Your task to perform on an android device: check out phone information Image 0: 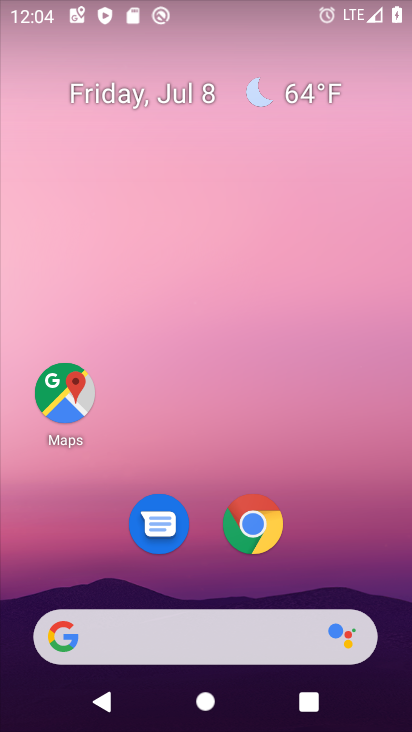
Step 0: drag from (243, 409) to (256, 9)
Your task to perform on an android device: check out phone information Image 1: 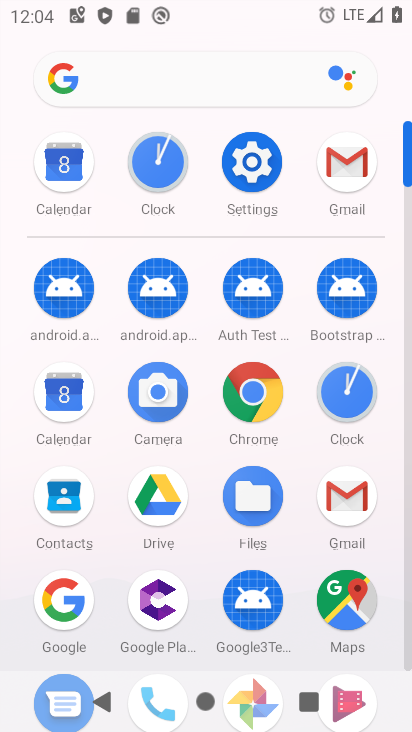
Step 1: drag from (195, 439) to (219, 153)
Your task to perform on an android device: check out phone information Image 2: 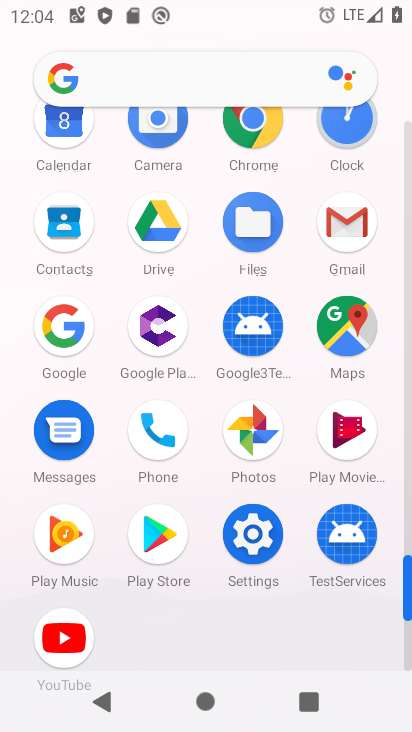
Step 2: click (168, 419)
Your task to perform on an android device: check out phone information Image 3: 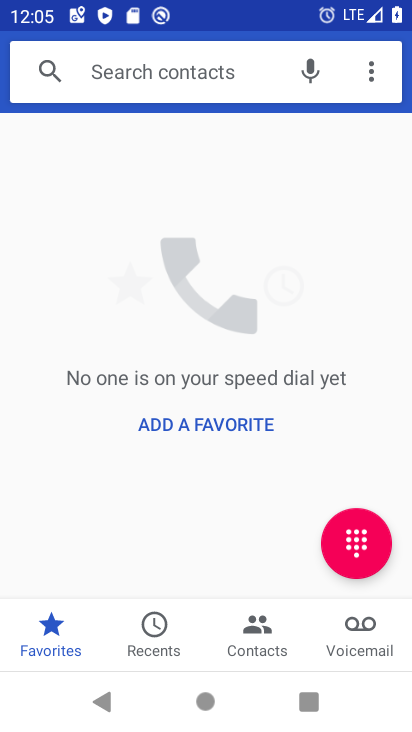
Step 3: click (371, 77)
Your task to perform on an android device: check out phone information Image 4: 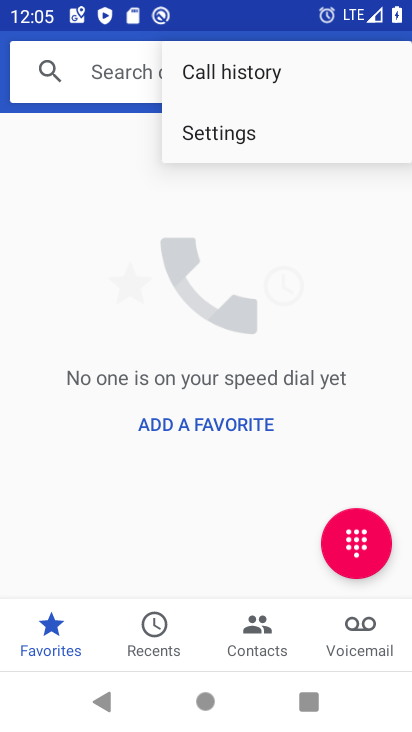
Step 4: click (286, 123)
Your task to perform on an android device: check out phone information Image 5: 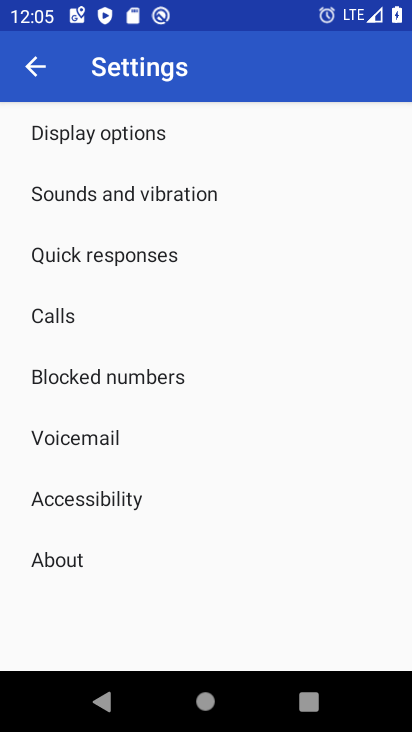
Step 5: click (63, 554)
Your task to perform on an android device: check out phone information Image 6: 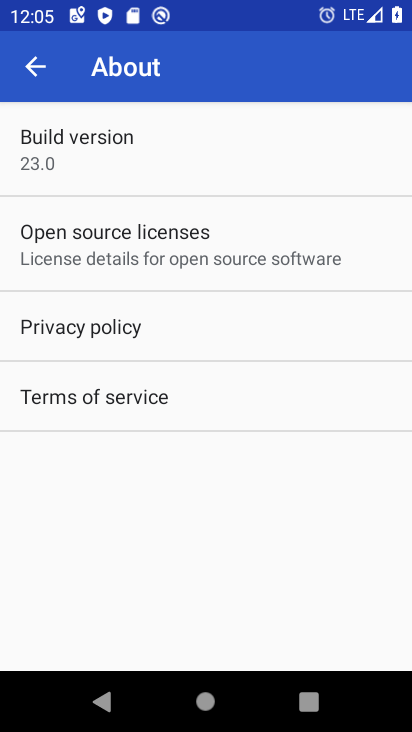
Step 6: task complete